Your task to perform on an android device: Open privacy settings Image 0: 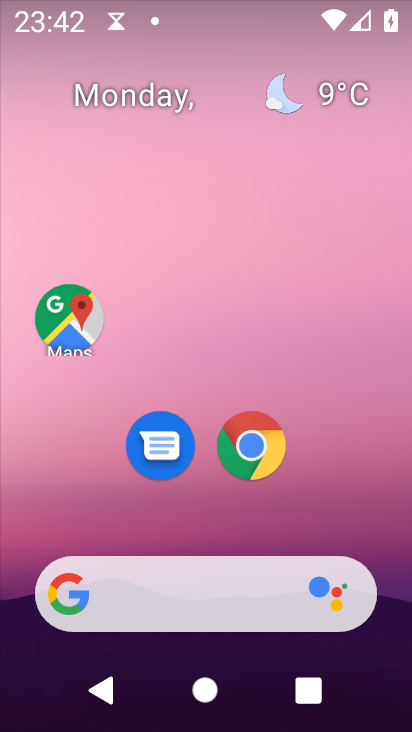
Step 0: drag from (310, 569) to (376, 19)
Your task to perform on an android device: Open privacy settings Image 1: 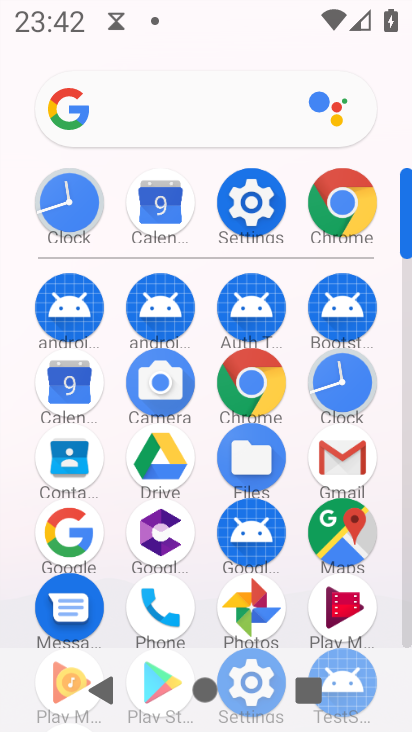
Step 1: click (257, 183)
Your task to perform on an android device: Open privacy settings Image 2: 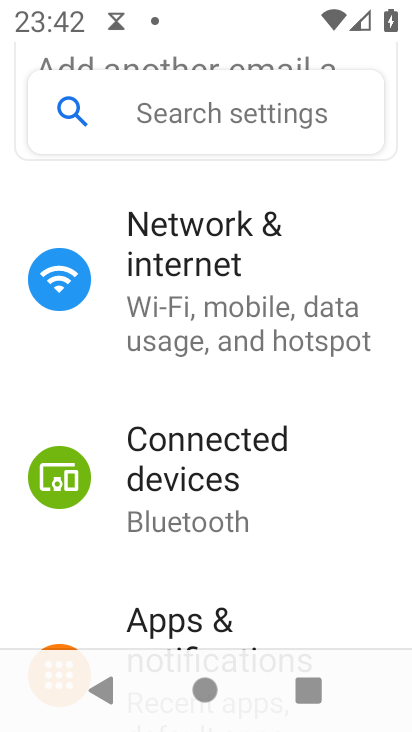
Step 2: drag from (248, 610) to (313, 165)
Your task to perform on an android device: Open privacy settings Image 3: 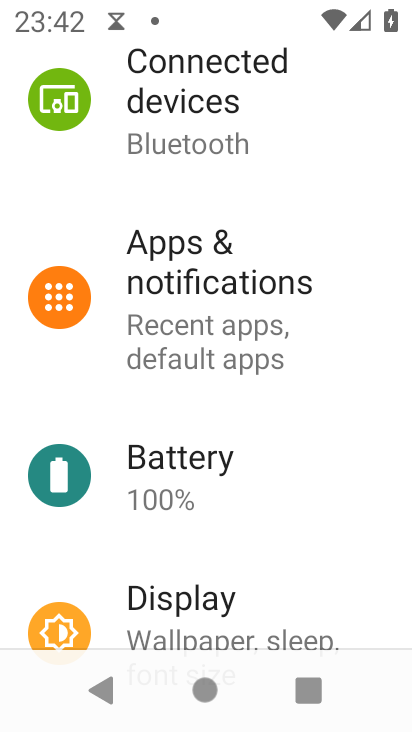
Step 3: drag from (261, 600) to (298, 211)
Your task to perform on an android device: Open privacy settings Image 4: 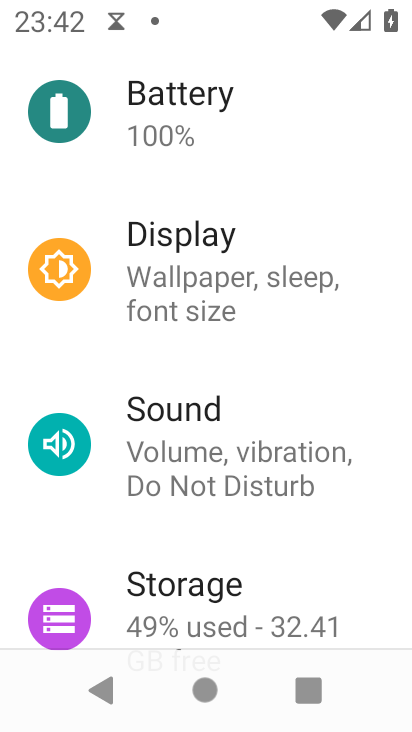
Step 4: drag from (251, 592) to (313, 112)
Your task to perform on an android device: Open privacy settings Image 5: 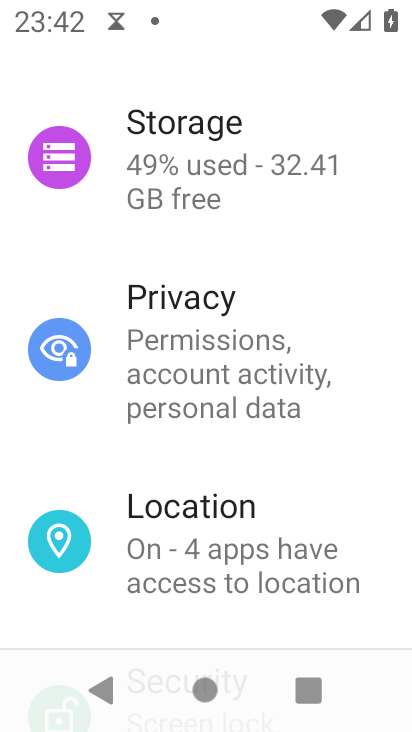
Step 5: click (240, 376)
Your task to perform on an android device: Open privacy settings Image 6: 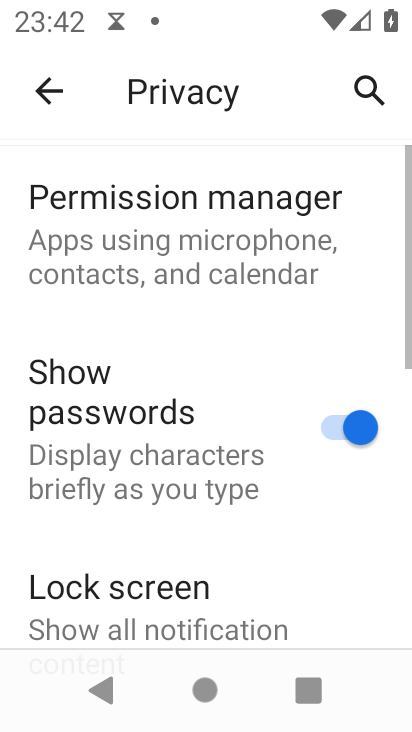
Step 6: task complete